Your task to perform on an android device: add a contact in the contacts app Image 0: 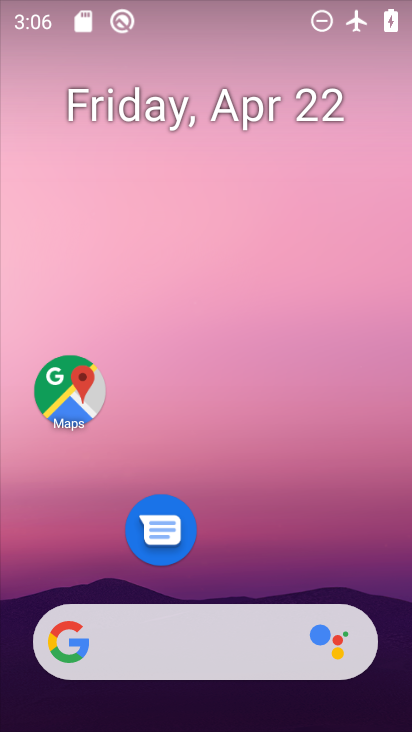
Step 0: drag from (281, 554) to (242, 10)
Your task to perform on an android device: add a contact in the contacts app Image 1: 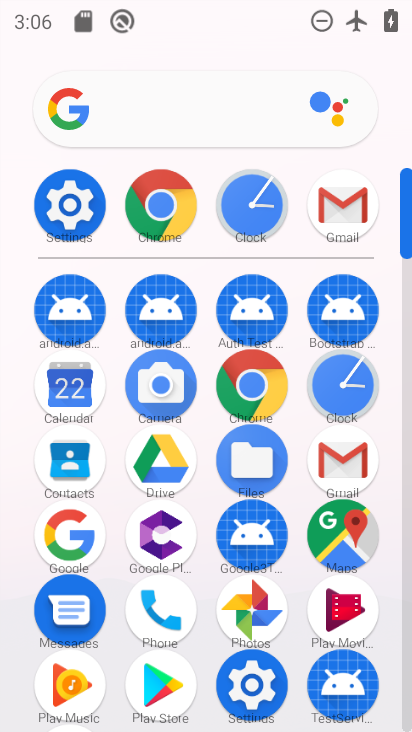
Step 1: click (70, 469)
Your task to perform on an android device: add a contact in the contacts app Image 2: 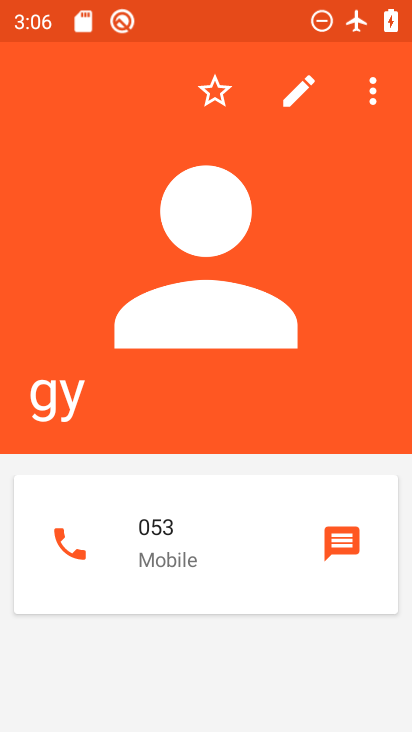
Step 2: press back button
Your task to perform on an android device: add a contact in the contacts app Image 3: 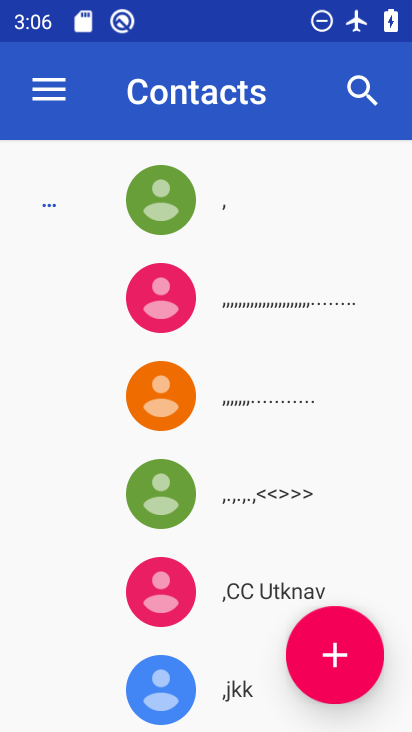
Step 3: click (333, 658)
Your task to perform on an android device: add a contact in the contacts app Image 4: 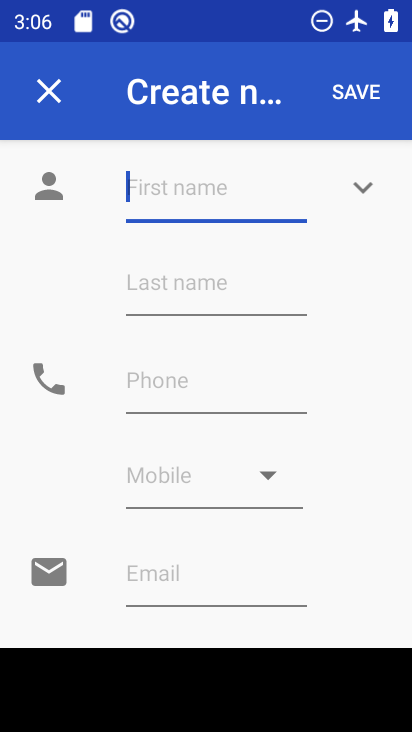
Step 4: type "aq"
Your task to perform on an android device: add a contact in the contacts app Image 5: 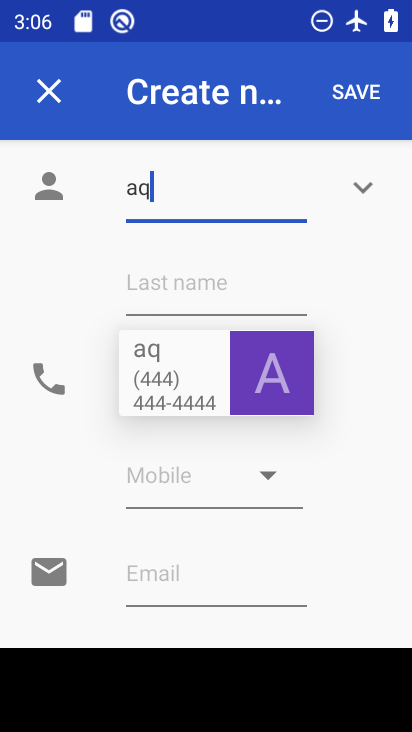
Step 5: click (229, 393)
Your task to perform on an android device: add a contact in the contacts app Image 6: 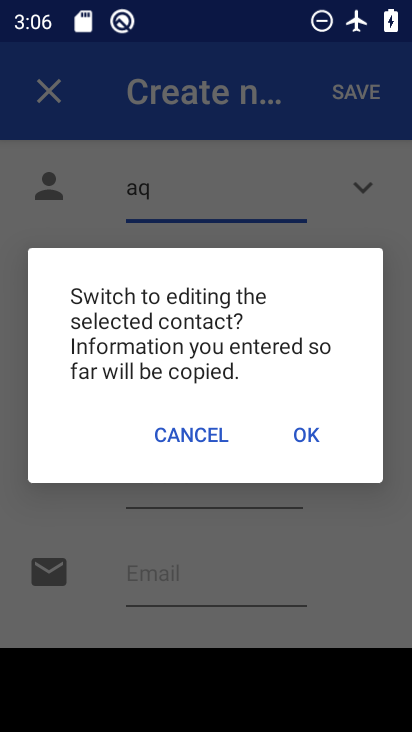
Step 6: click (194, 424)
Your task to perform on an android device: add a contact in the contacts app Image 7: 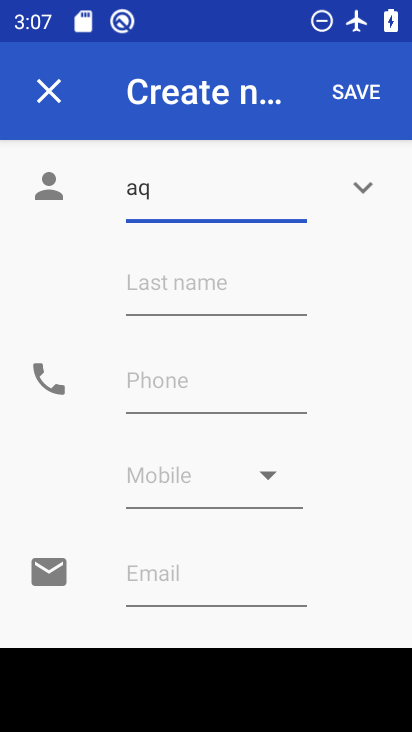
Step 7: click (179, 385)
Your task to perform on an android device: add a contact in the contacts app Image 8: 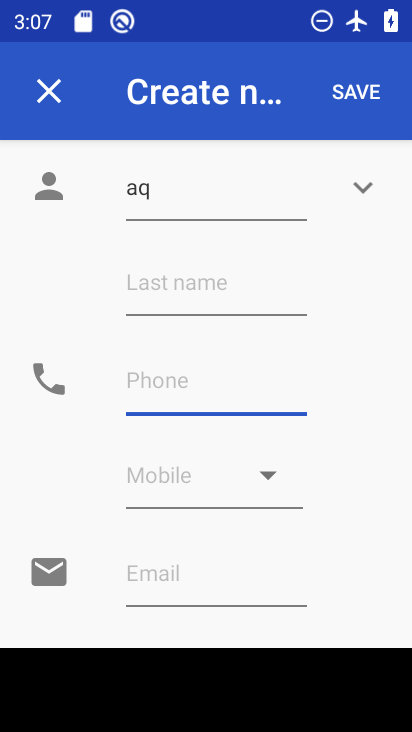
Step 8: type "121232"
Your task to perform on an android device: add a contact in the contacts app Image 9: 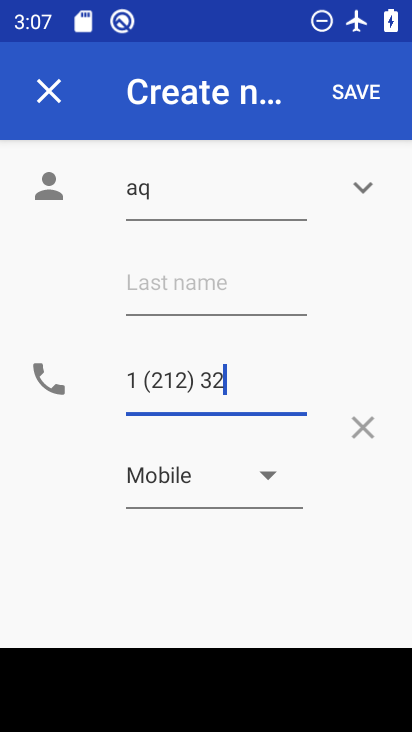
Step 9: type ""
Your task to perform on an android device: add a contact in the contacts app Image 10: 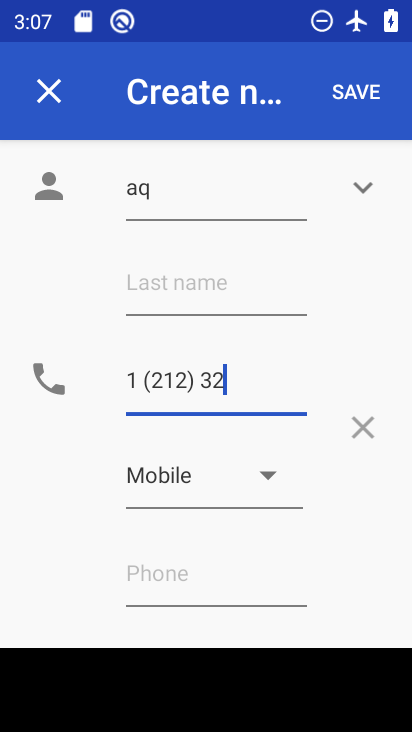
Step 10: click (362, 85)
Your task to perform on an android device: add a contact in the contacts app Image 11: 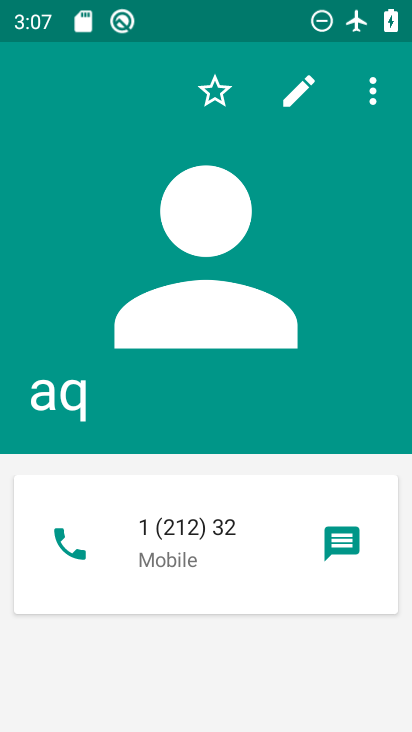
Step 11: task complete